Your task to perform on an android device: Go to Google Image 0: 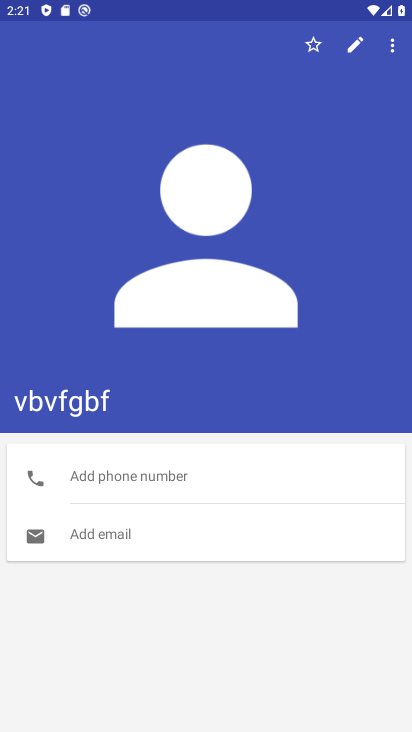
Step 0: press home button
Your task to perform on an android device: Go to Google Image 1: 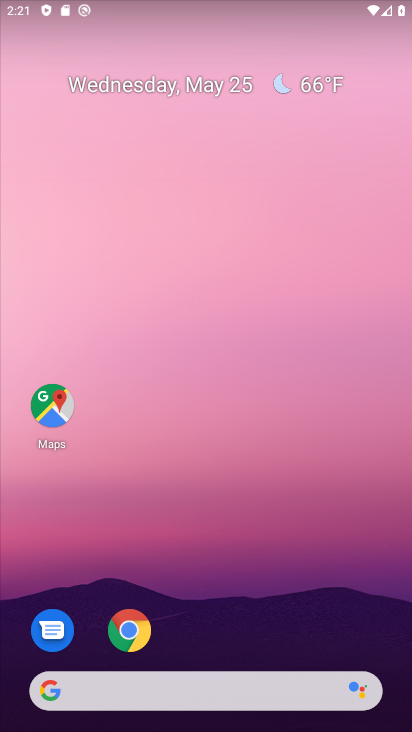
Step 1: drag from (218, 644) to (251, 80)
Your task to perform on an android device: Go to Google Image 2: 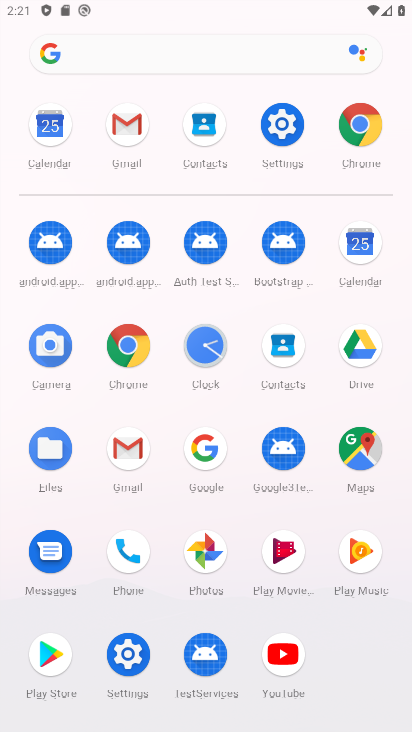
Step 2: click (202, 442)
Your task to perform on an android device: Go to Google Image 3: 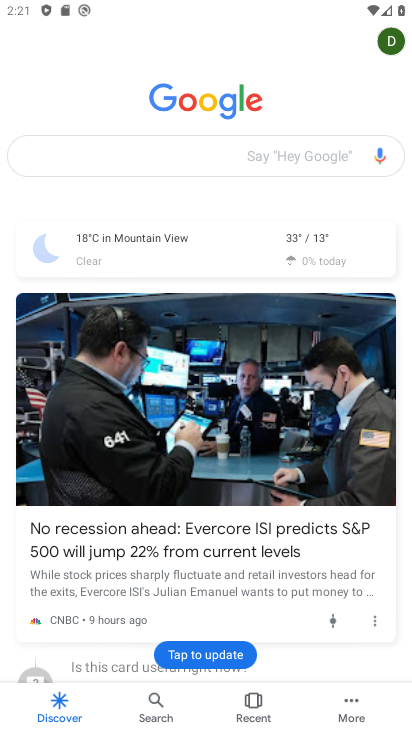
Step 3: task complete